Your task to perform on an android device: turn off location Image 0: 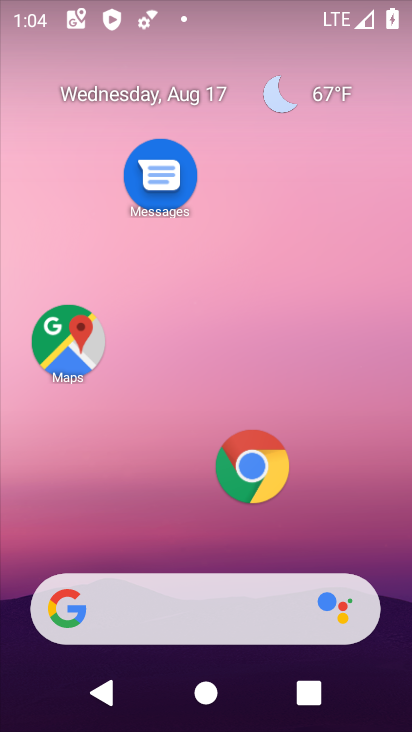
Step 0: drag from (208, 444) to (172, 32)
Your task to perform on an android device: turn off location Image 1: 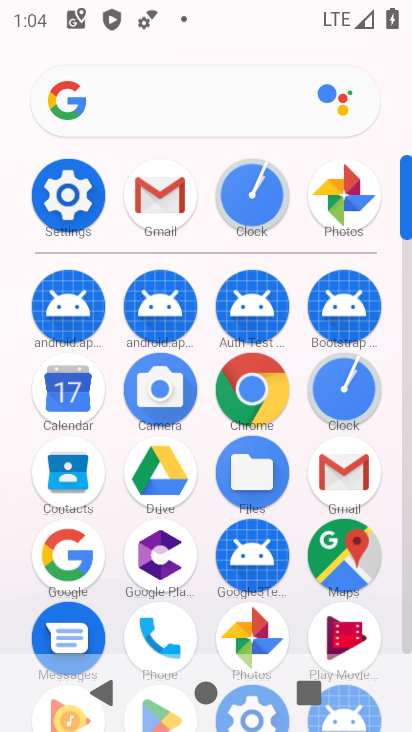
Step 1: click (63, 196)
Your task to perform on an android device: turn off location Image 2: 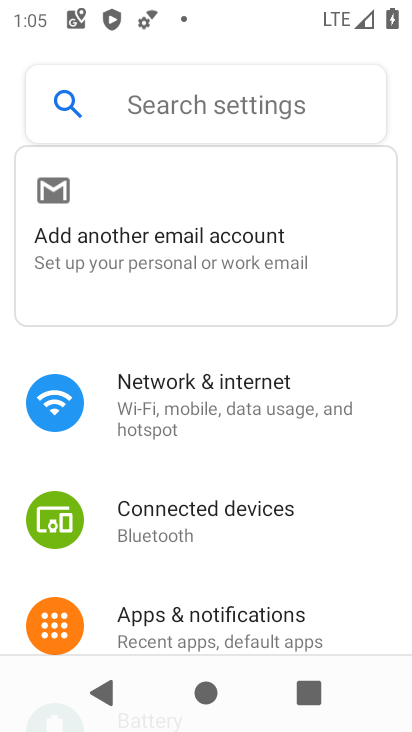
Step 2: drag from (160, 480) to (217, 6)
Your task to perform on an android device: turn off location Image 3: 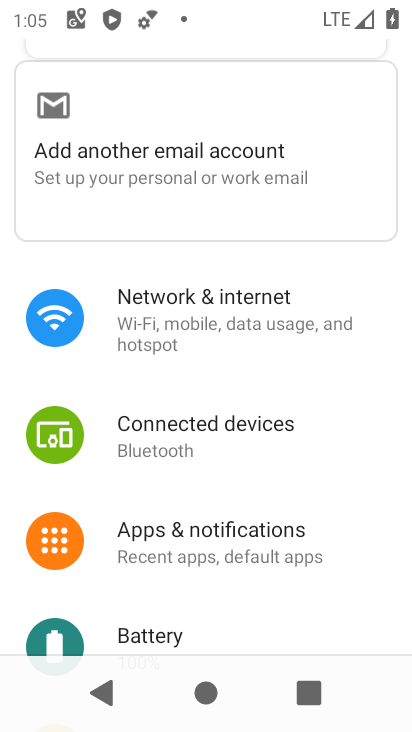
Step 3: drag from (232, 590) to (209, 225)
Your task to perform on an android device: turn off location Image 4: 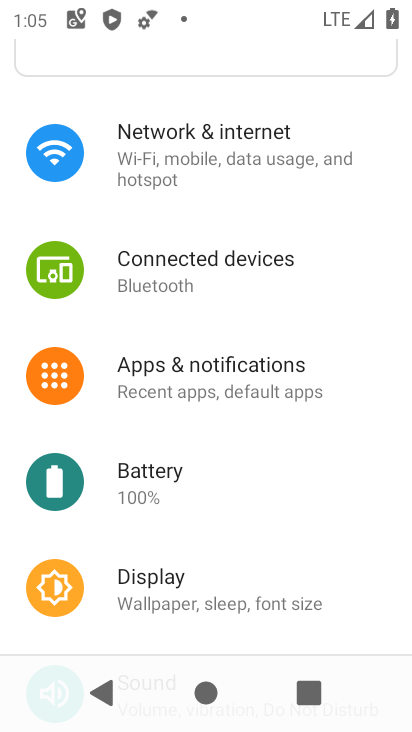
Step 4: drag from (224, 516) to (213, 22)
Your task to perform on an android device: turn off location Image 5: 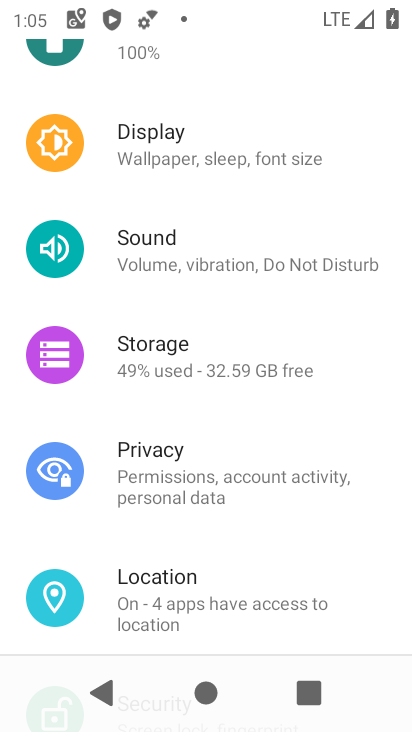
Step 5: drag from (193, 537) to (209, 196)
Your task to perform on an android device: turn off location Image 6: 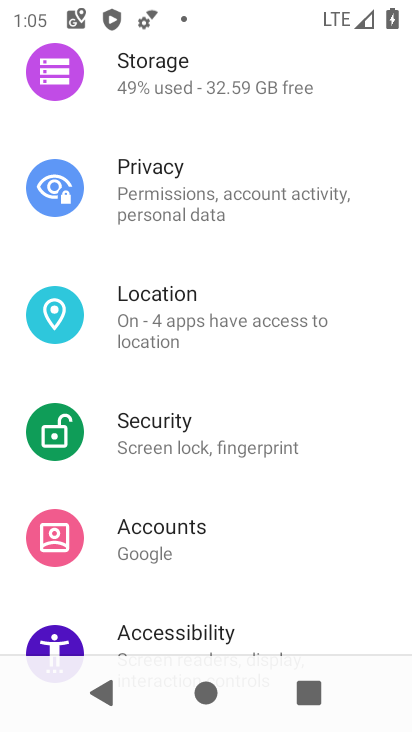
Step 6: click (174, 310)
Your task to perform on an android device: turn off location Image 7: 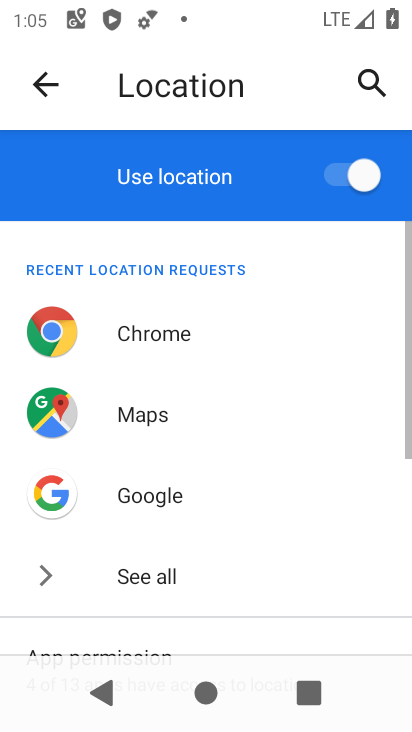
Step 7: click (334, 174)
Your task to perform on an android device: turn off location Image 8: 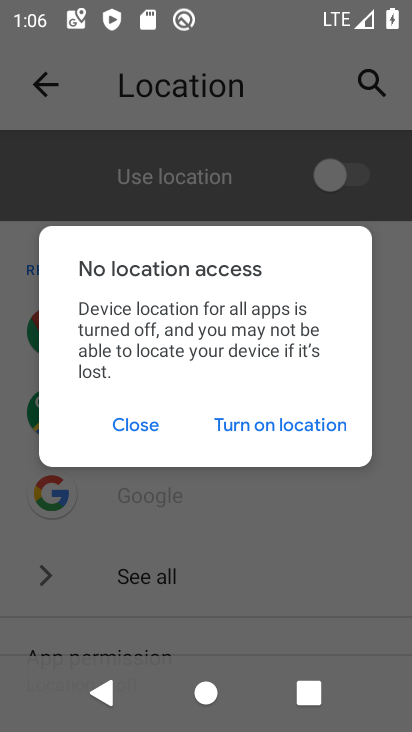
Step 8: task complete